Your task to perform on an android device: Search for a custom made wallet Image 0: 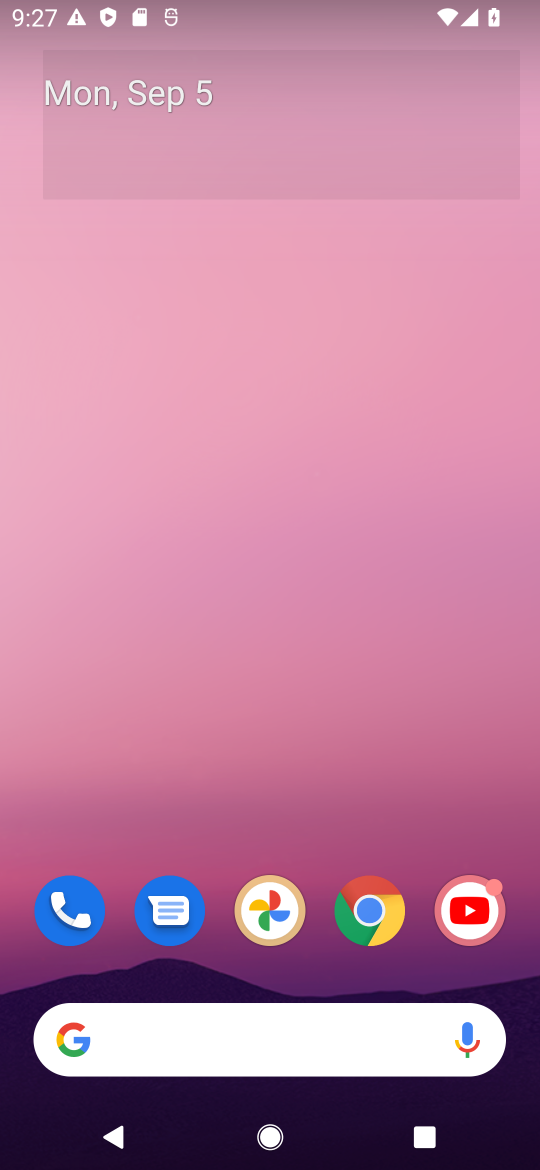
Step 0: click (393, 931)
Your task to perform on an android device: Search for a custom made wallet Image 1: 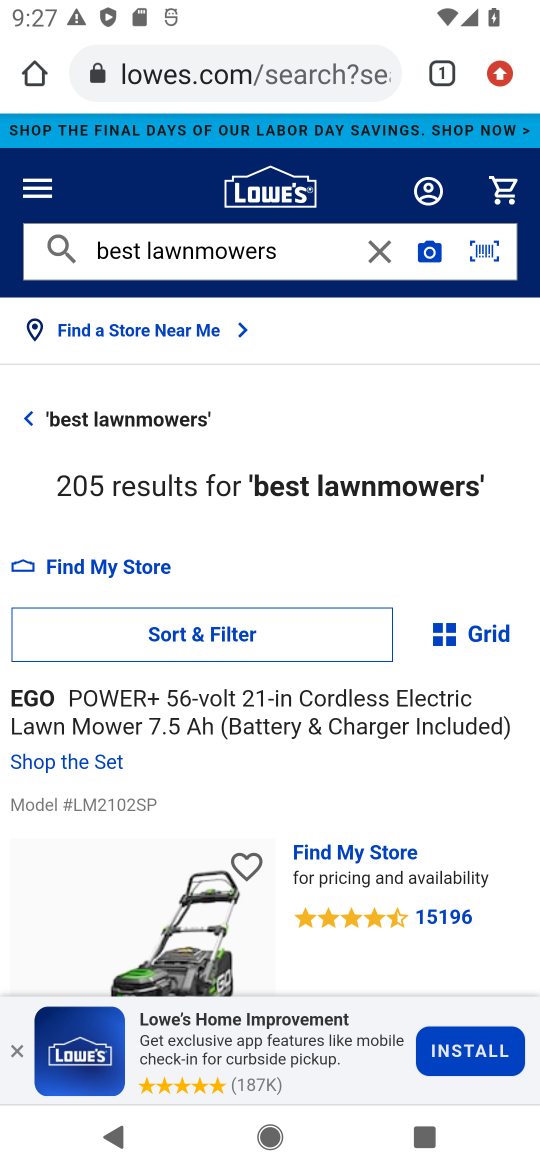
Step 1: click (158, 72)
Your task to perform on an android device: Search for a custom made wallet Image 2: 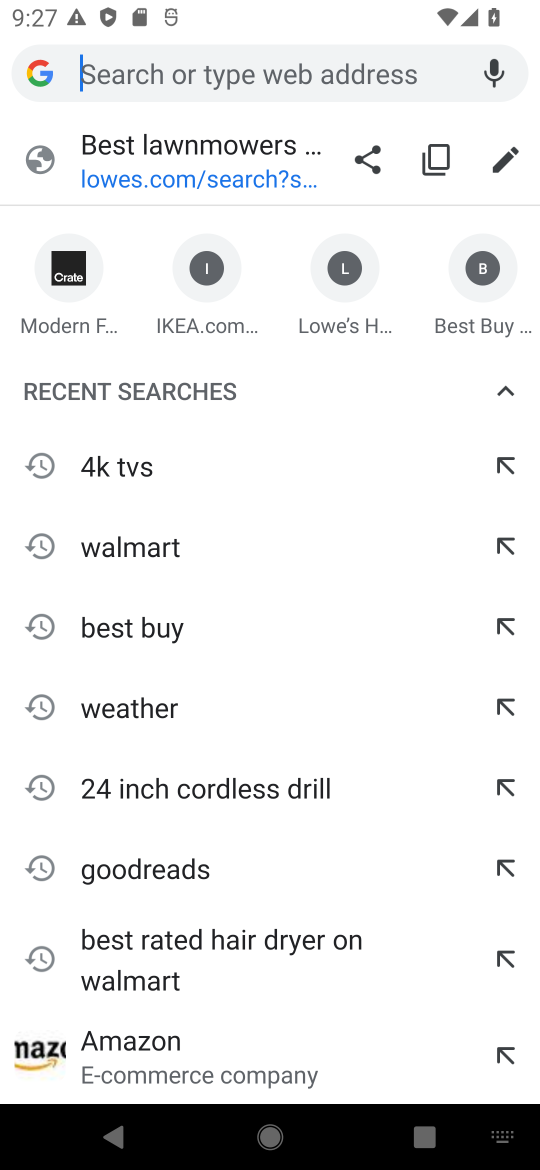
Step 2: click (213, 73)
Your task to perform on an android device: Search for a custom made wallet Image 3: 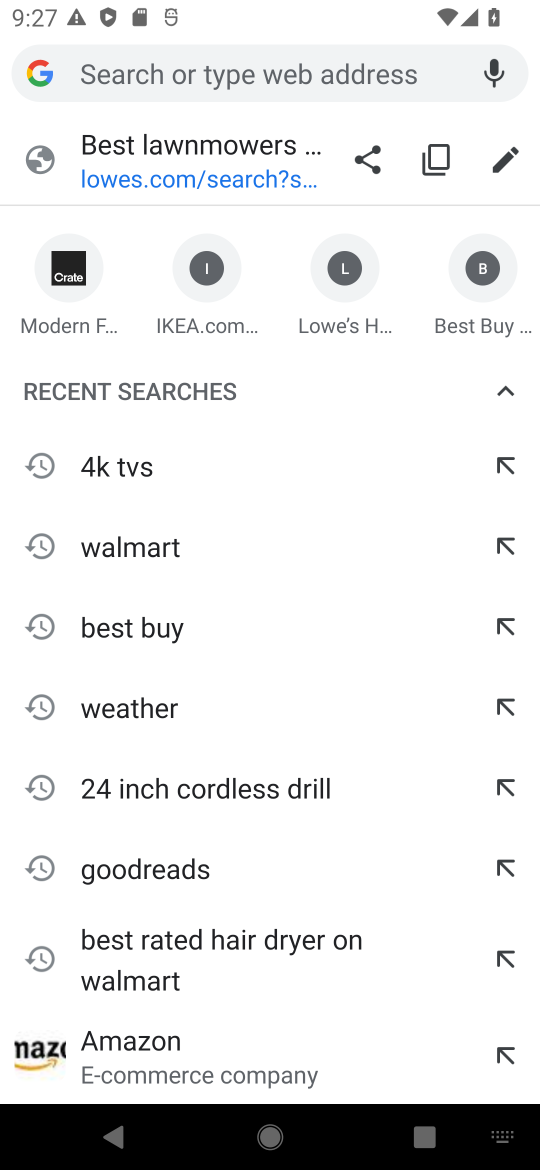
Step 3: type "custom made wallet"
Your task to perform on an android device: Search for a custom made wallet Image 4: 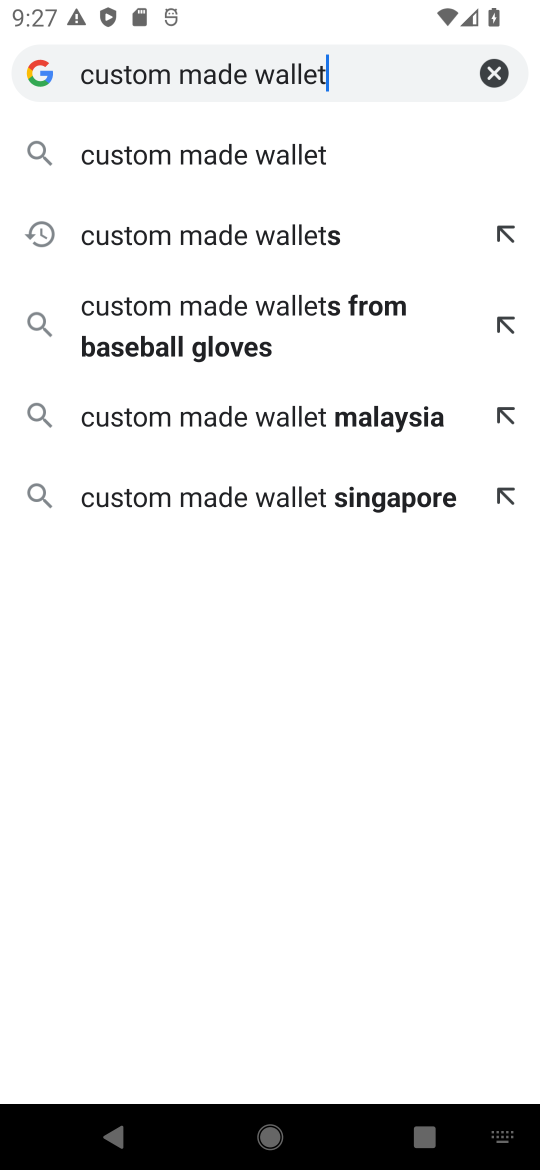
Step 4: click (336, 148)
Your task to perform on an android device: Search for a custom made wallet Image 5: 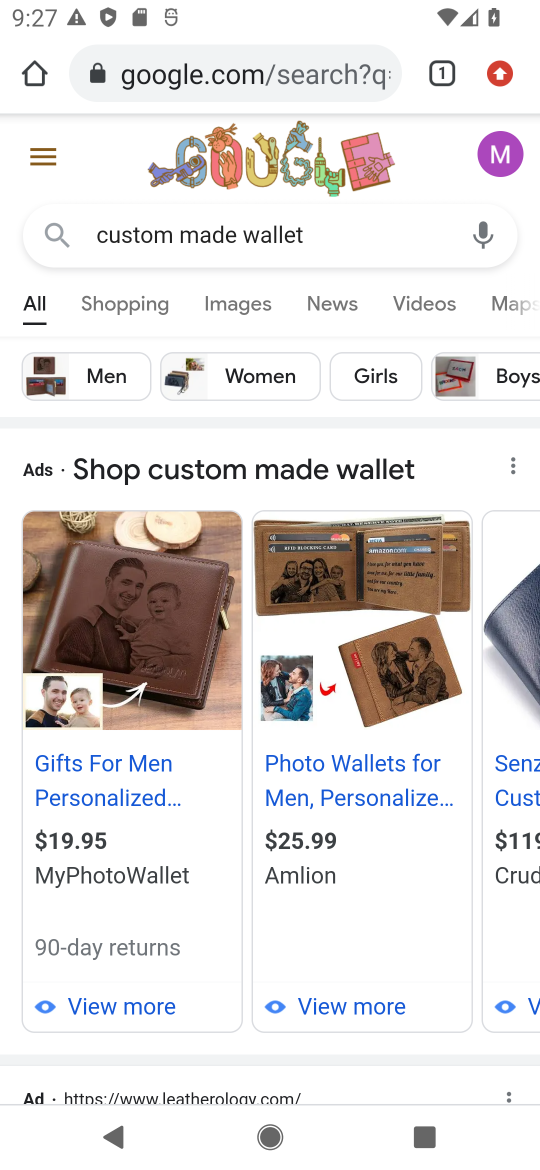
Step 5: task complete